Your task to perform on an android device: Open Wikipedia Image 0: 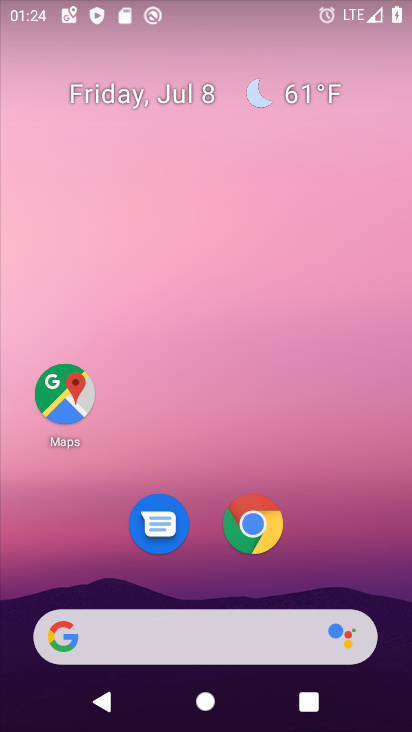
Step 0: drag from (223, 436) to (234, 8)
Your task to perform on an android device: Open Wikipedia Image 1: 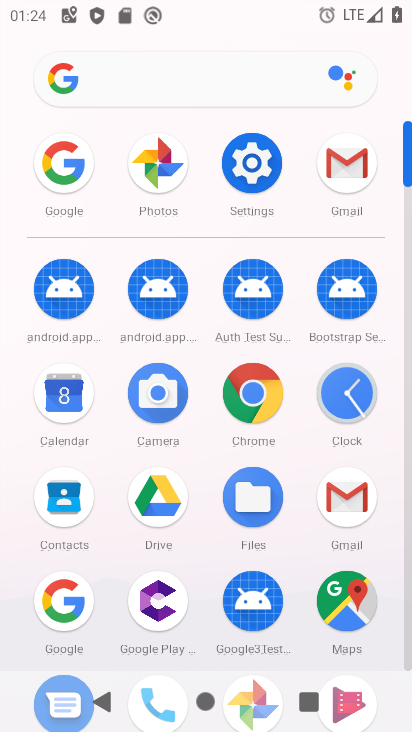
Step 1: click (244, 371)
Your task to perform on an android device: Open Wikipedia Image 2: 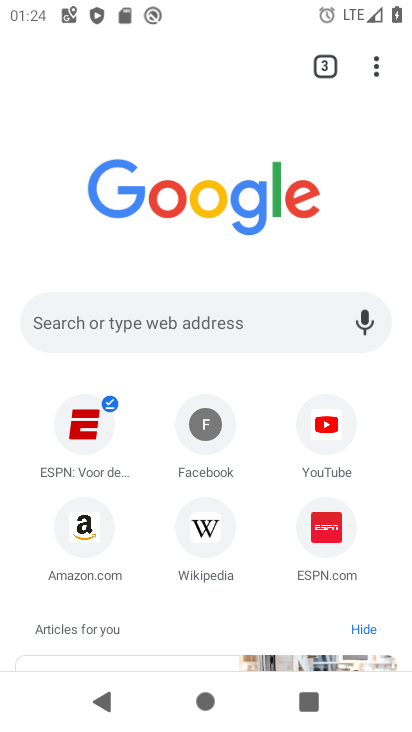
Step 2: click (214, 525)
Your task to perform on an android device: Open Wikipedia Image 3: 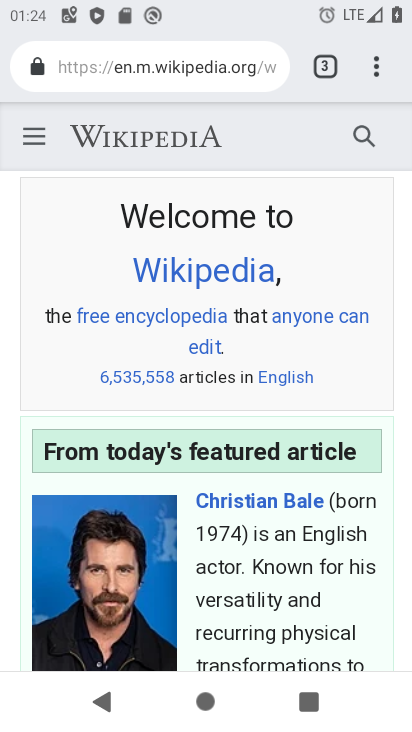
Step 3: task complete